Your task to perform on an android device: Open CNN.com Image 0: 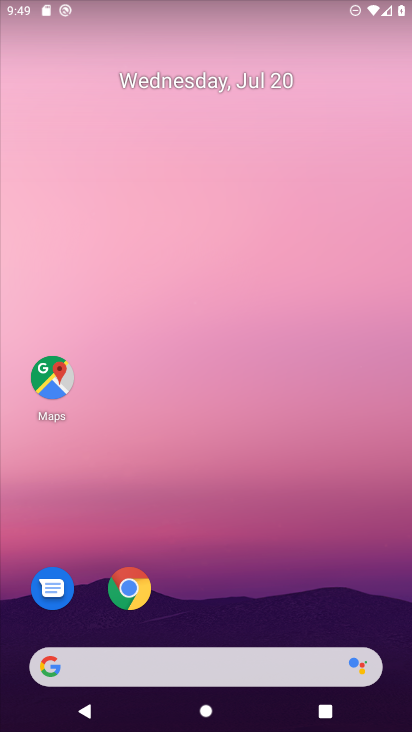
Step 0: click (134, 656)
Your task to perform on an android device: Open CNN.com Image 1: 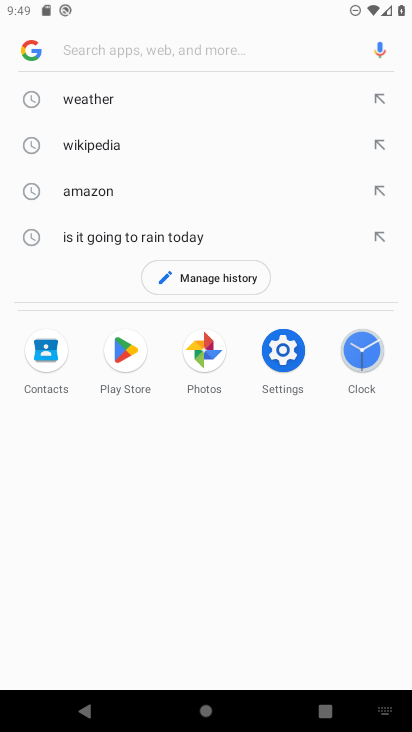
Step 1: type "cnn.com"
Your task to perform on an android device: Open CNN.com Image 2: 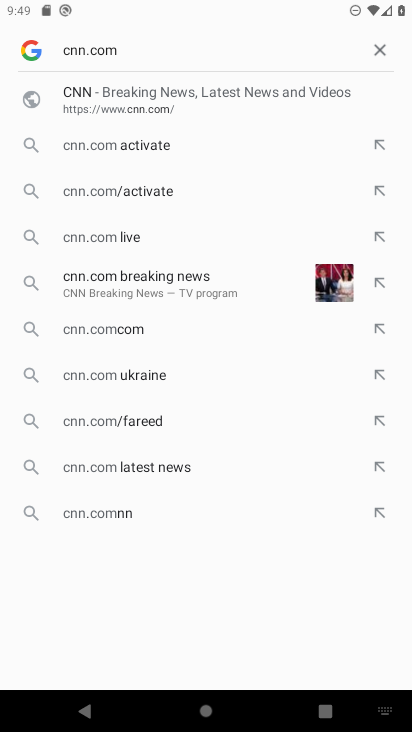
Step 2: click (167, 114)
Your task to perform on an android device: Open CNN.com Image 3: 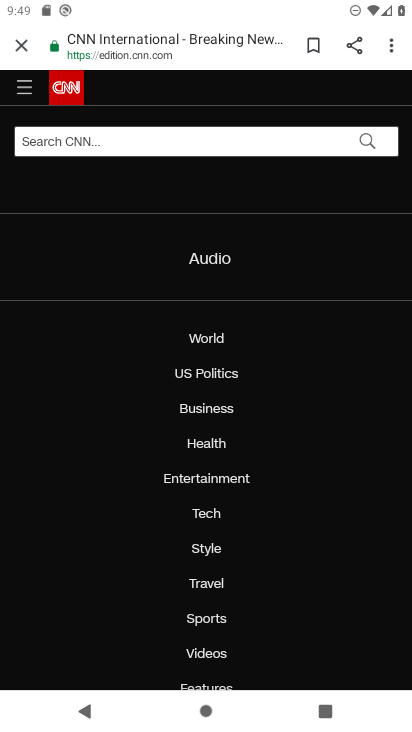
Step 3: task complete